Your task to perform on an android device: What's on my calendar tomorrow? Image 0: 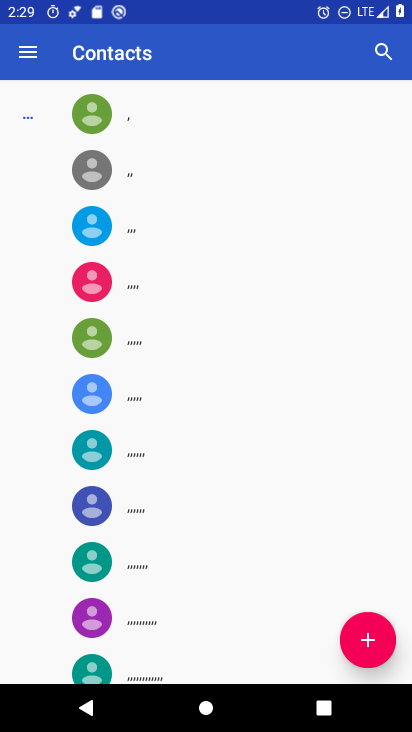
Step 0: drag from (247, 532) to (337, 260)
Your task to perform on an android device: What's on my calendar tomorrow? Image 1: 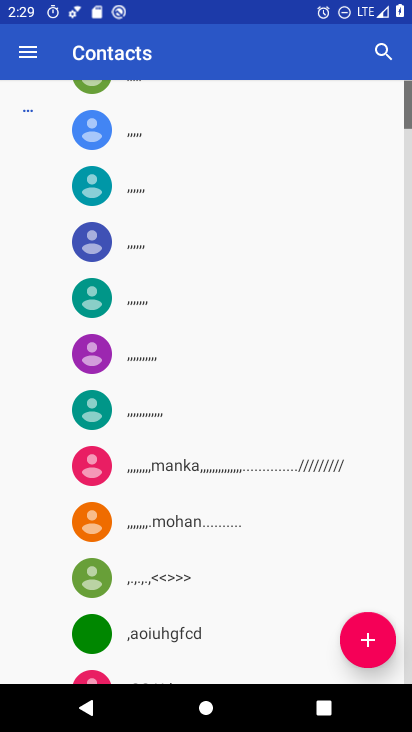
Step 1: press home button
Your task to perform on an android device: What's on my calendar tomorrow? Image 2: 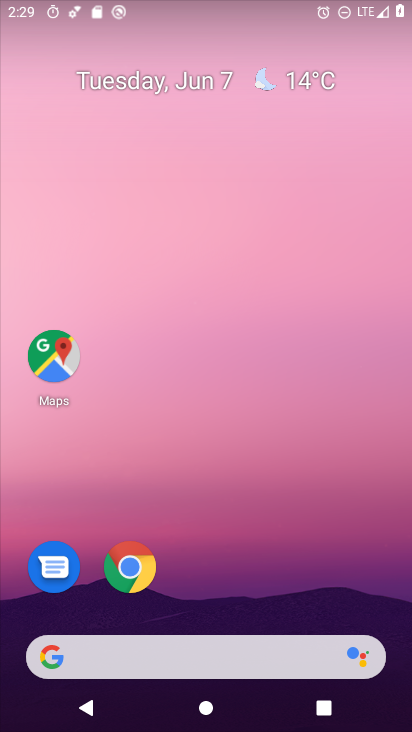
Step 2: drag from (315, 531) to (379, 72)
Your task to perform on an android device: What's on my calendar tomorrow? Image 3: 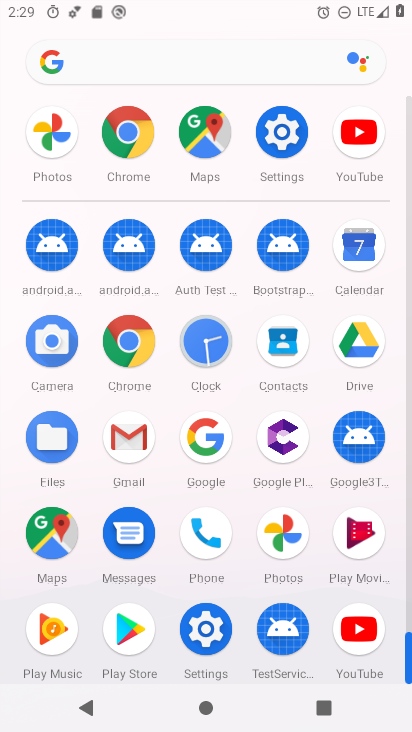
Step 3: click (391, 243)
Your task to perform on an android device: What's on my calendar tomorrow? Image 4: 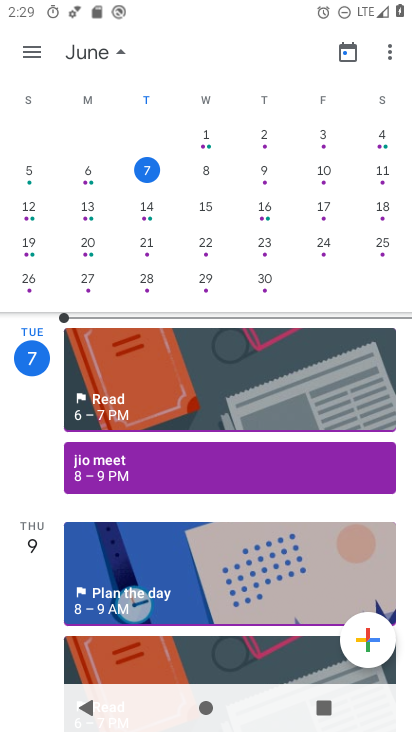
Step 4: click (209, 170)
Your task to perform on an android device: What's on my calendar tomorrow? Image 5: 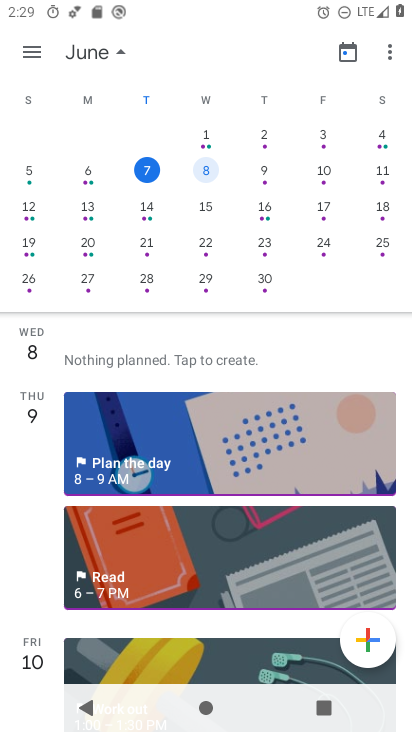
Step 5: task complete